Your task to perform on an android device: install app "Viber Messenger" Image 0: 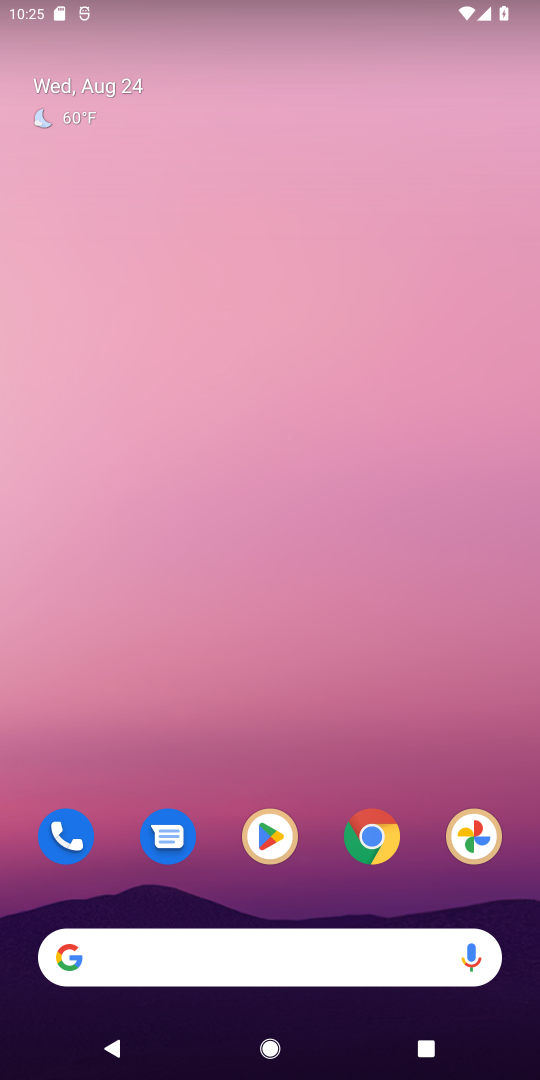
Step 0: click (264, 846)
Your task to perform on an android device: install app "Viber Messenger" Image 1: 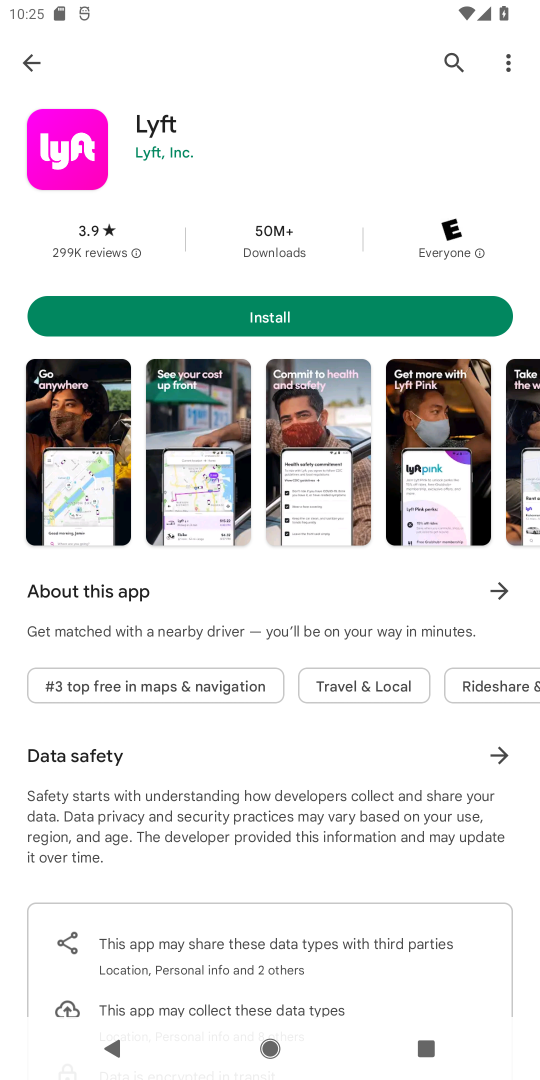
Step 1: click (453, 57)
Your task to perform on an android device: install app "Viber Messenger" Image 2: 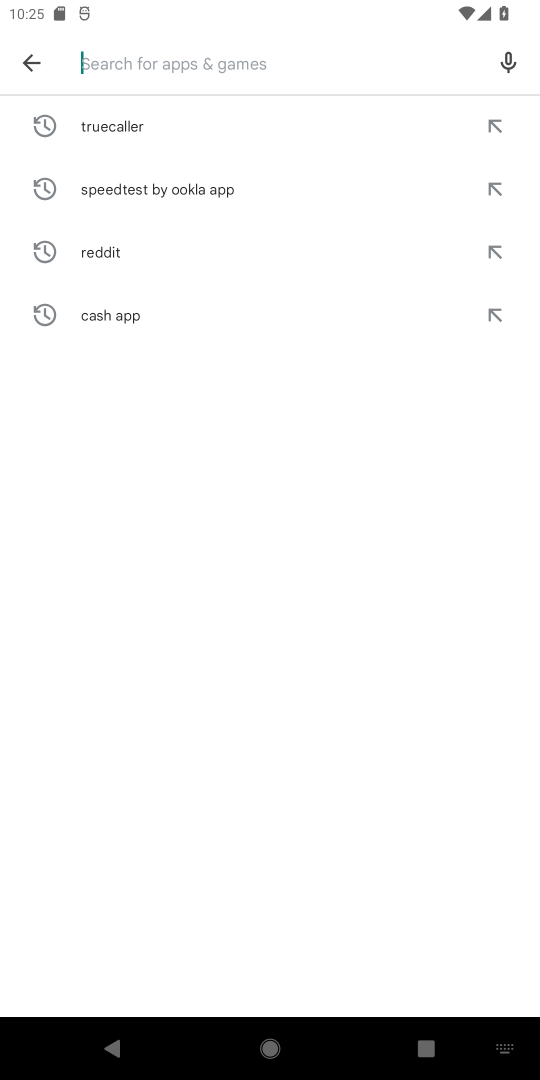
Step 2: type "Viber Messenger"
Your task to perform on an android device: install app "Viber Messenger" Image 3: 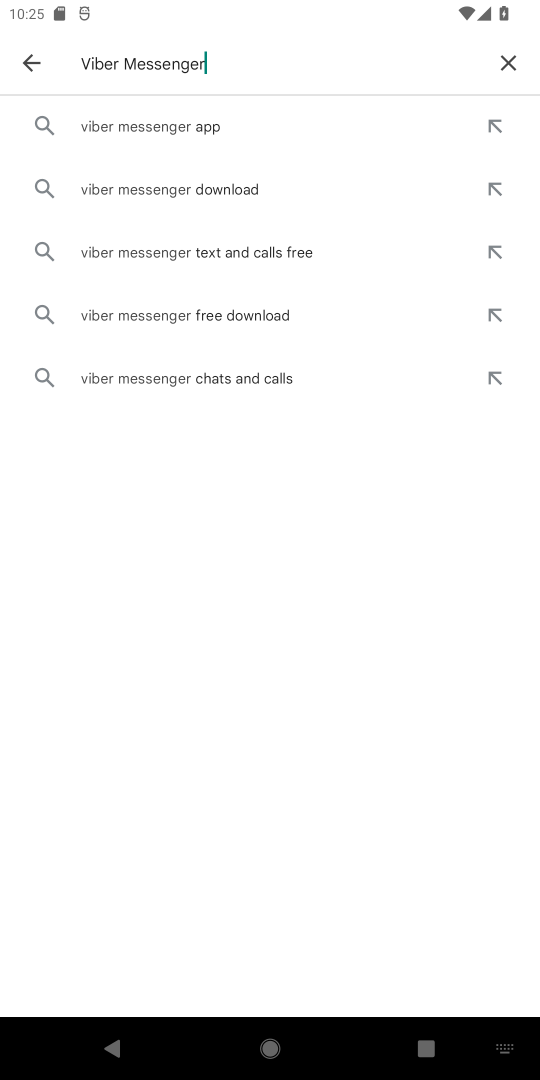
Step 3: click (190, 130)
Your task to perform on an android device: install app "Viber Messenger" Image 4: 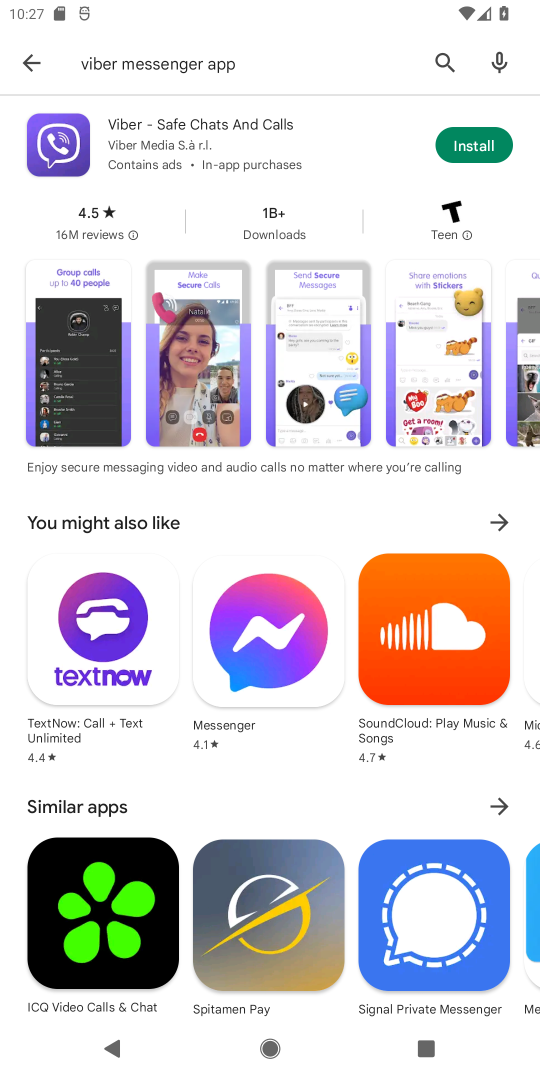
Step 4: click (480, 141)
Your task to perform on an android device: install app "Viber Messenger" Image 5: 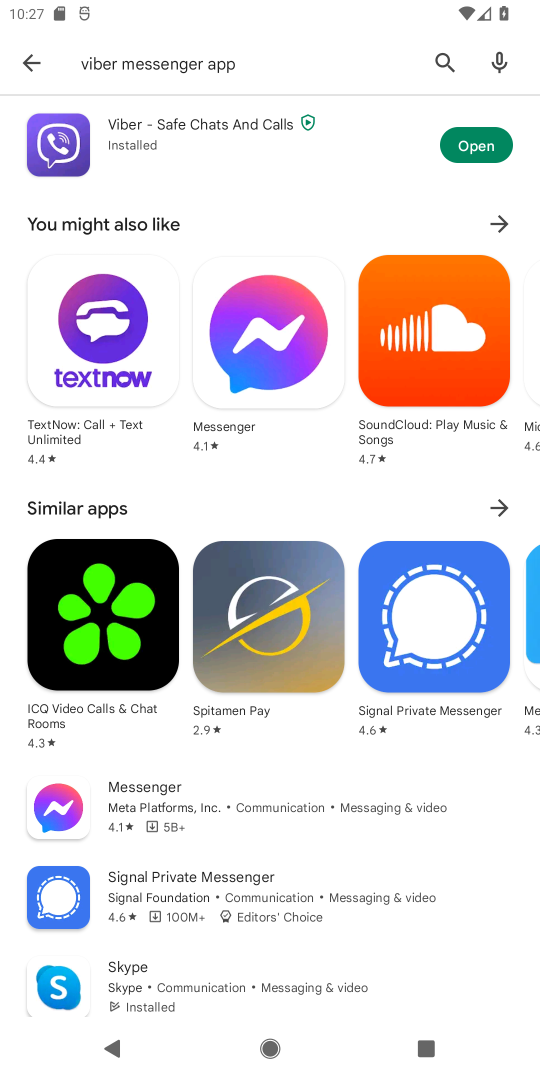
Step 5: task complete